Your task to perform on an android device: set default search engine in the chrome app Image 0: 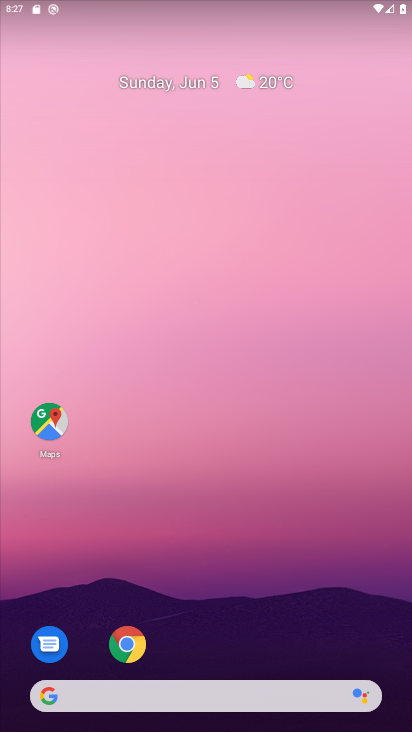
Step 0: drag from (292, 543) to (288, 190)
Your task to perform on an android device: set default search engine in the chrome app Image 1: 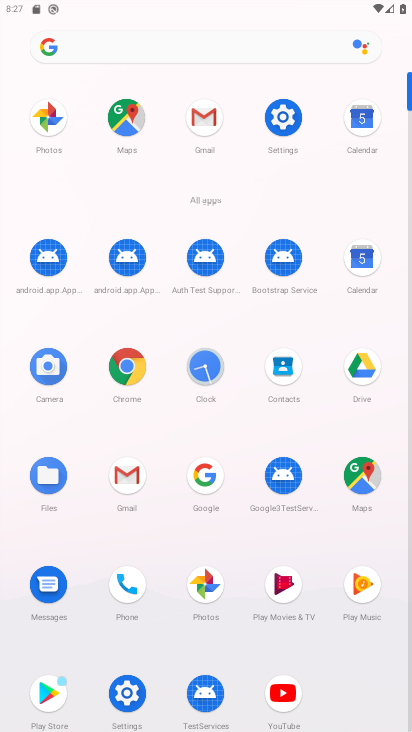
Step 1: click (122, 373)
Your task to perform on an android device: set default search engine in the chrome app Image 2: 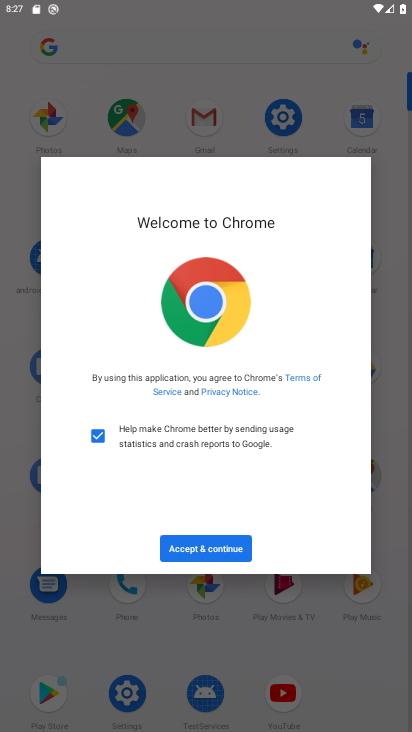
Step 2: click (204, 545)
Your task to perform on an android device: set default search engine in the chrome app Image 3: 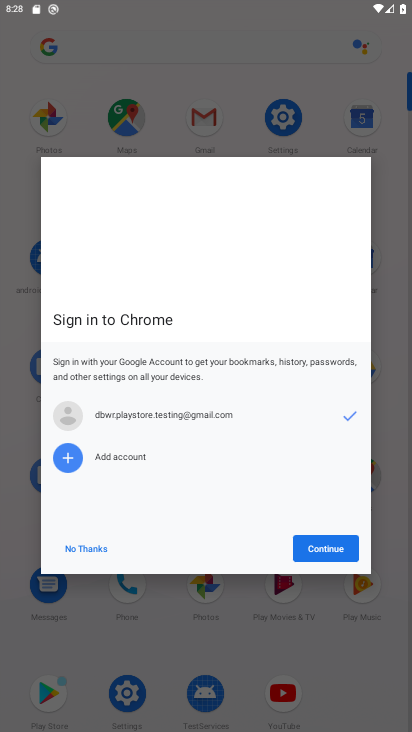
Step 3: click (321, 545)
Your task to perform on an android device: set default search engine in the chrome app Image 4: 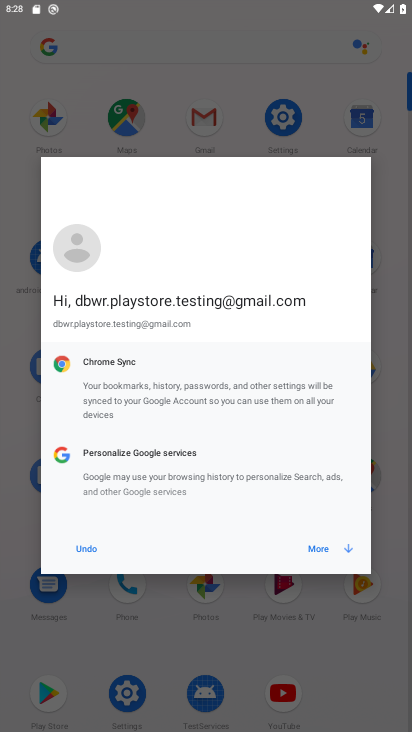
Step 4: click (336, 547)
Your task to perform on an android device: set default search engine in the chrome app Image 5: 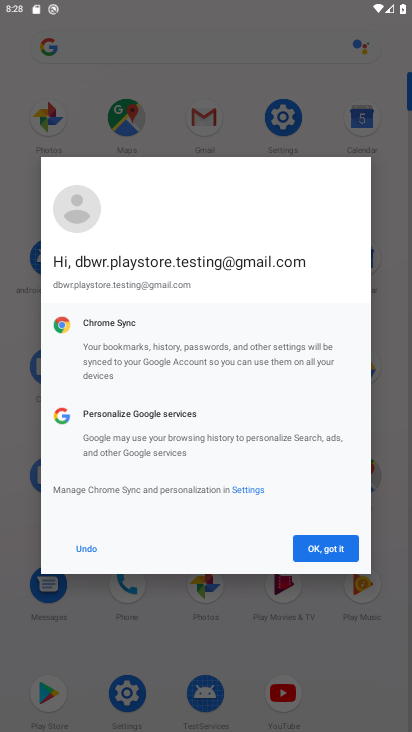
Step 5: click (336, 547)
Your task to perform on an android device: set default search engine in the chrome app Image 6: 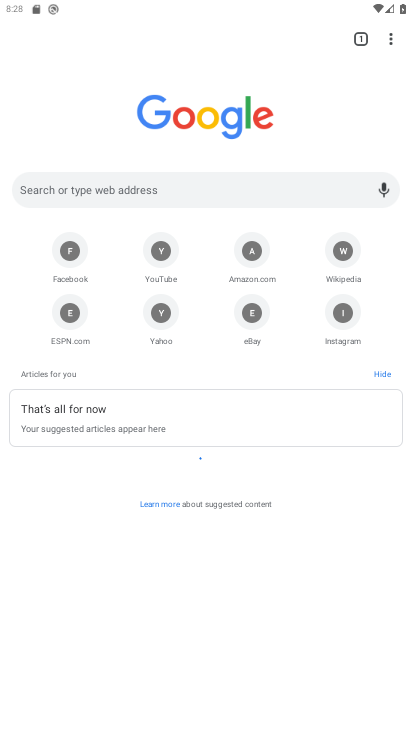
Step 6: drag from (393, 38) to (288, 323)
Your task to perform on an android device: set default search engine in the chrome app Image 7: 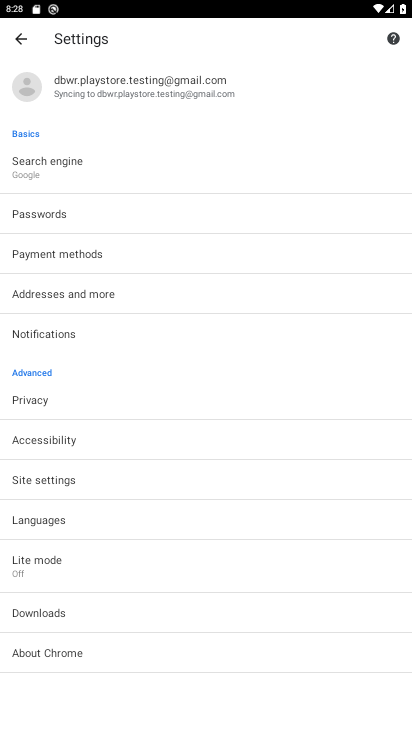
Step 7: click (67, 163)
Your task to perform on an android device: set default search engine in the chrome app Image 8: 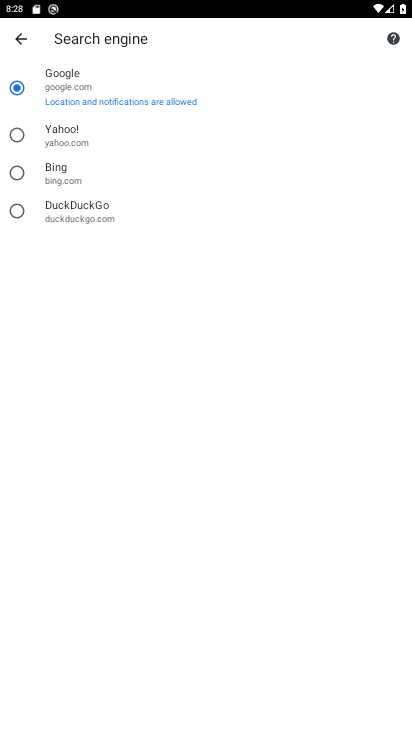
Step 8: click (53, 133)
Your task to perform on an android device: set default search engine in the chrome app Image 9: 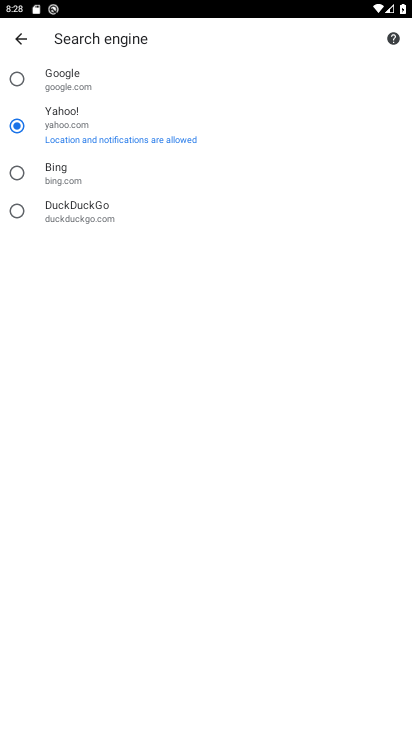
Step 9: task complete